Your task to perform on an android device: show emergency info Image 0: 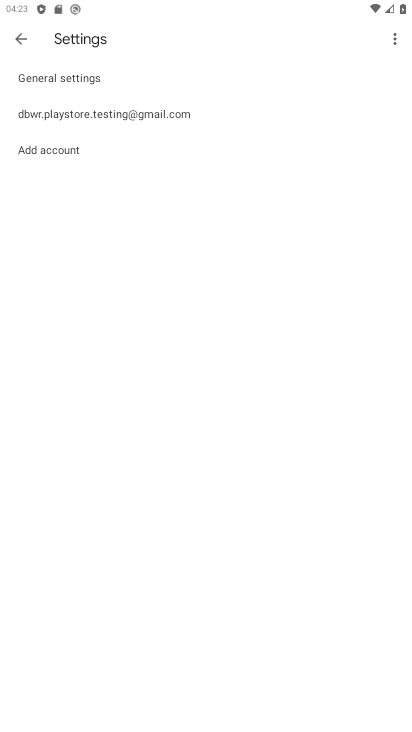
Step 0: press home button
Your task to perform on an android device: show emergency info Image 1: 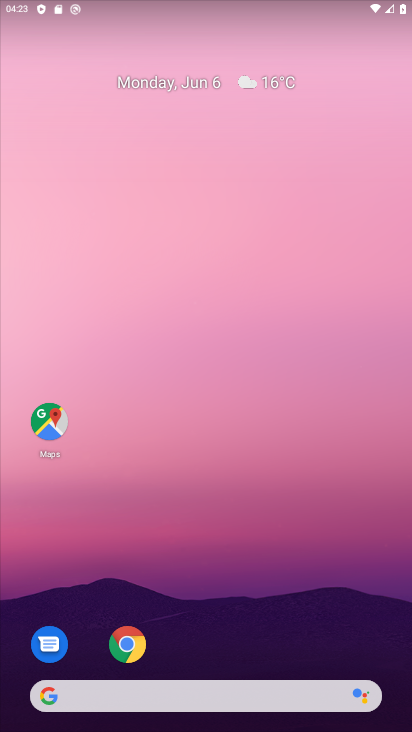
Step 1: drag from (364, 585) to (341, 259)
Your task to perform on an android device: show emergency info Image 2: 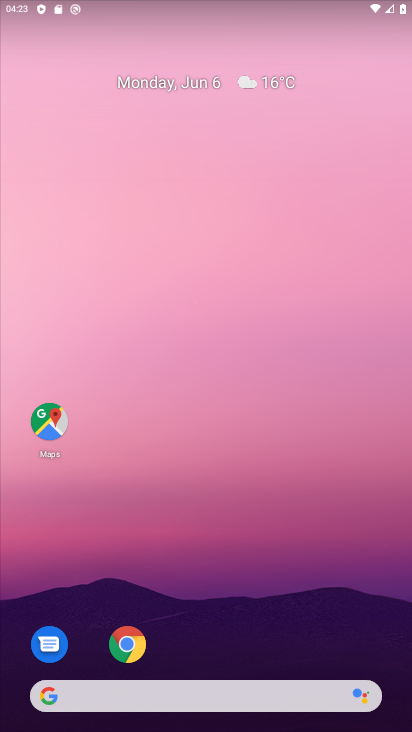
Step 2: drag from (389, 665) to (339, 147)
Your task to perform on an android device: show emergency info Image 3: 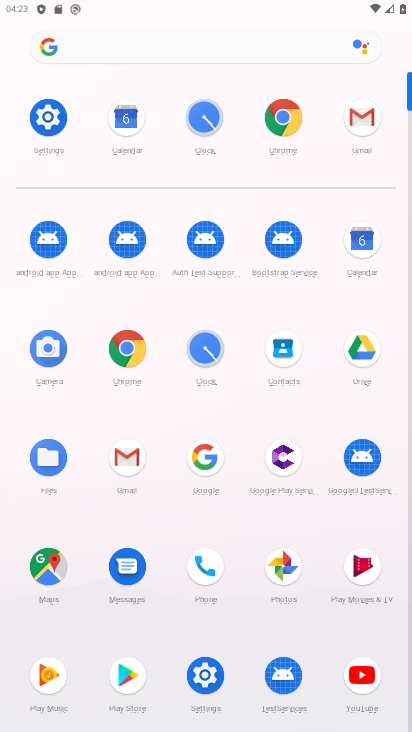
Step 3: click (194, 679)
Your task to perform on an android device: show emergency info Image 4: 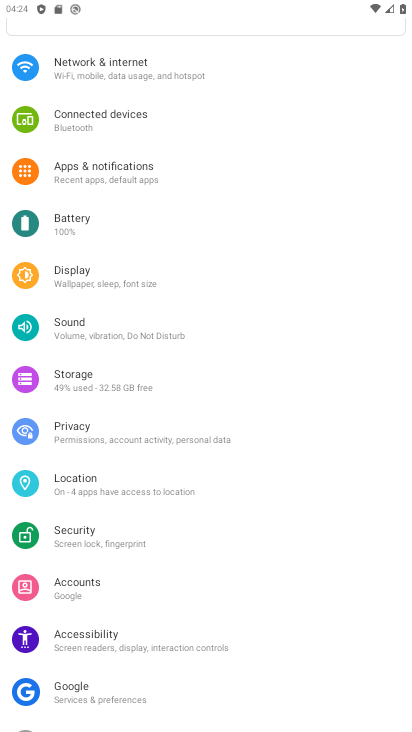
Step 4: drag from (214, 652) to (176, 295)
Your task to perform on an android device: show emergency info Image 5: 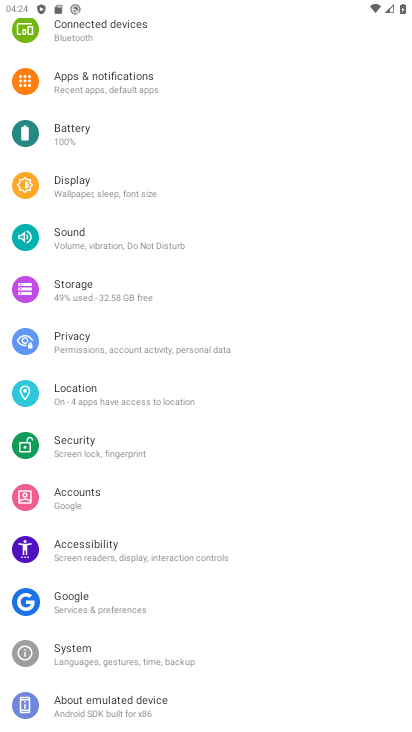
Step 5: click (101, 693)
Your task to perform on an android device: show emergency info Image 6: 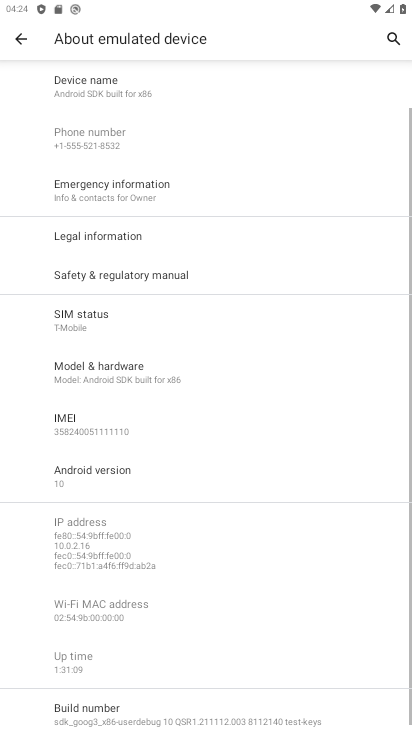
Step 6: drag from (194, 676) to (182, 316)
Your task to perform on an android device: show emergency info Image 7: 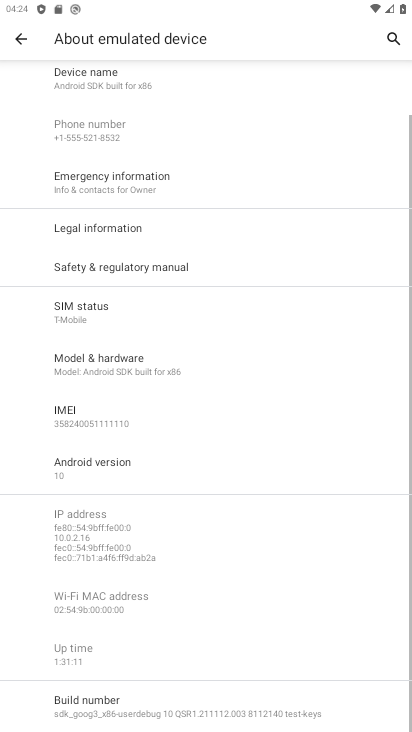
Step 7: click (138, 177)
Your task to perform on an android device: show emergency info Image 8: 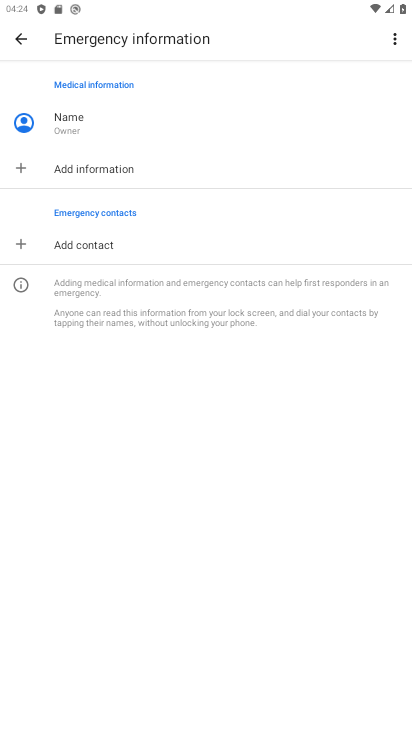
Step 8: task complete